Your task to perform on an android device: set the stopwatch Image 0: 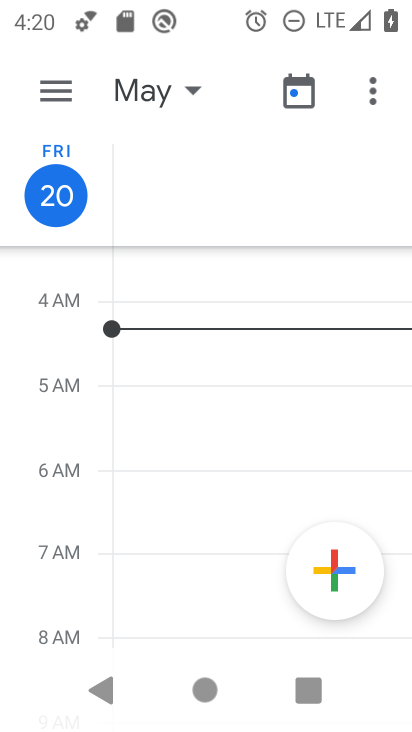
Step 0: press home button
Your task to perform on an android device: set the stopwatch Image 1: 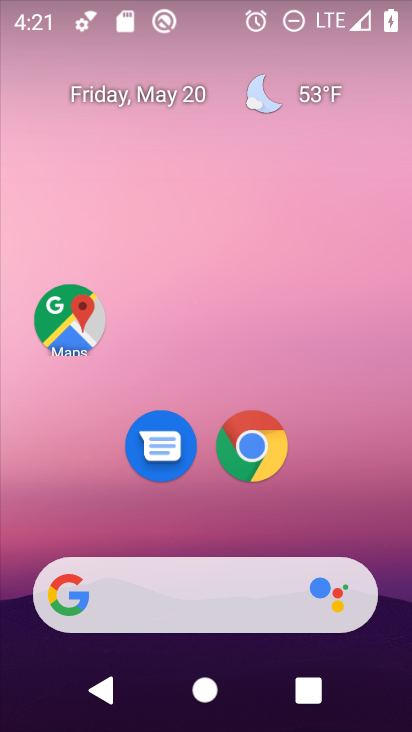
Step 1: drag from (359, 532) to (394, 48)
Your task to perform on an android device: set the stopwatch Image 2: 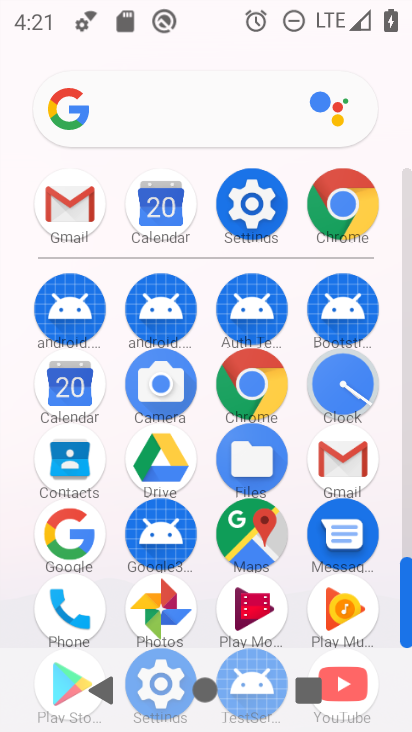
Step 2: click (352, 397)
Your task to perform on an android device: set the stopwatch Image 3: 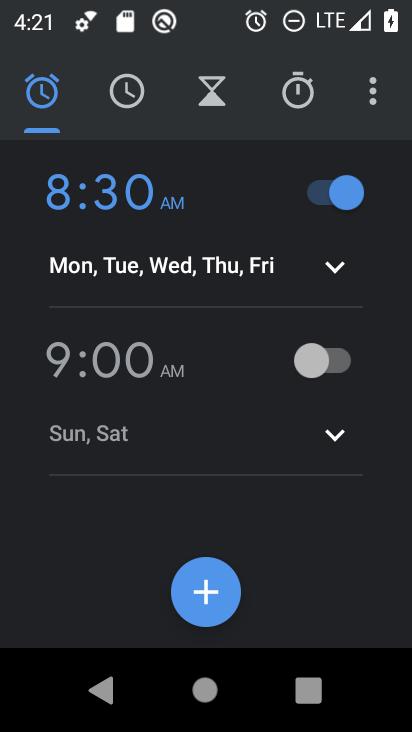
Step 3: click (295, 118)
Your task to perform on an android device: set the stopwatch Image 4: 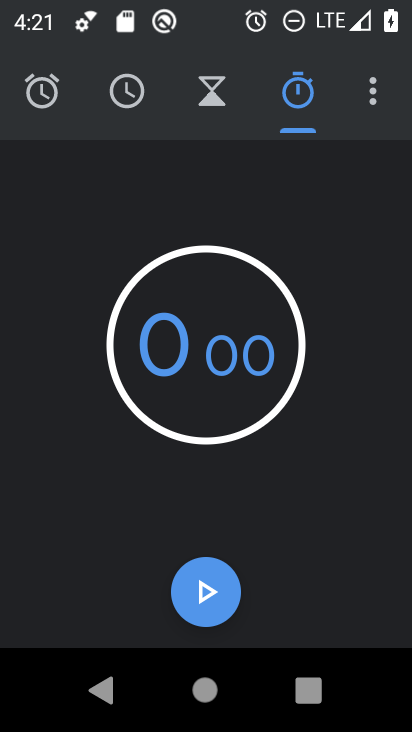
Step 4: click (215, 585)
Your task to perform on an android device: set the stopwatch Image 5: 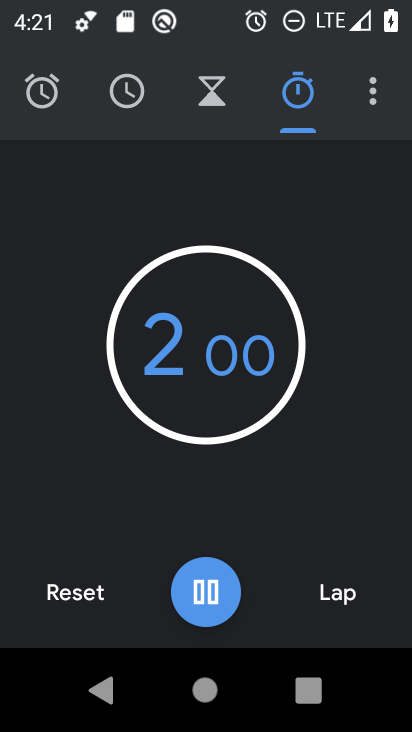
Step 5: task complete